Your task to perform on an android device: Go to accessibility settings Image 0: 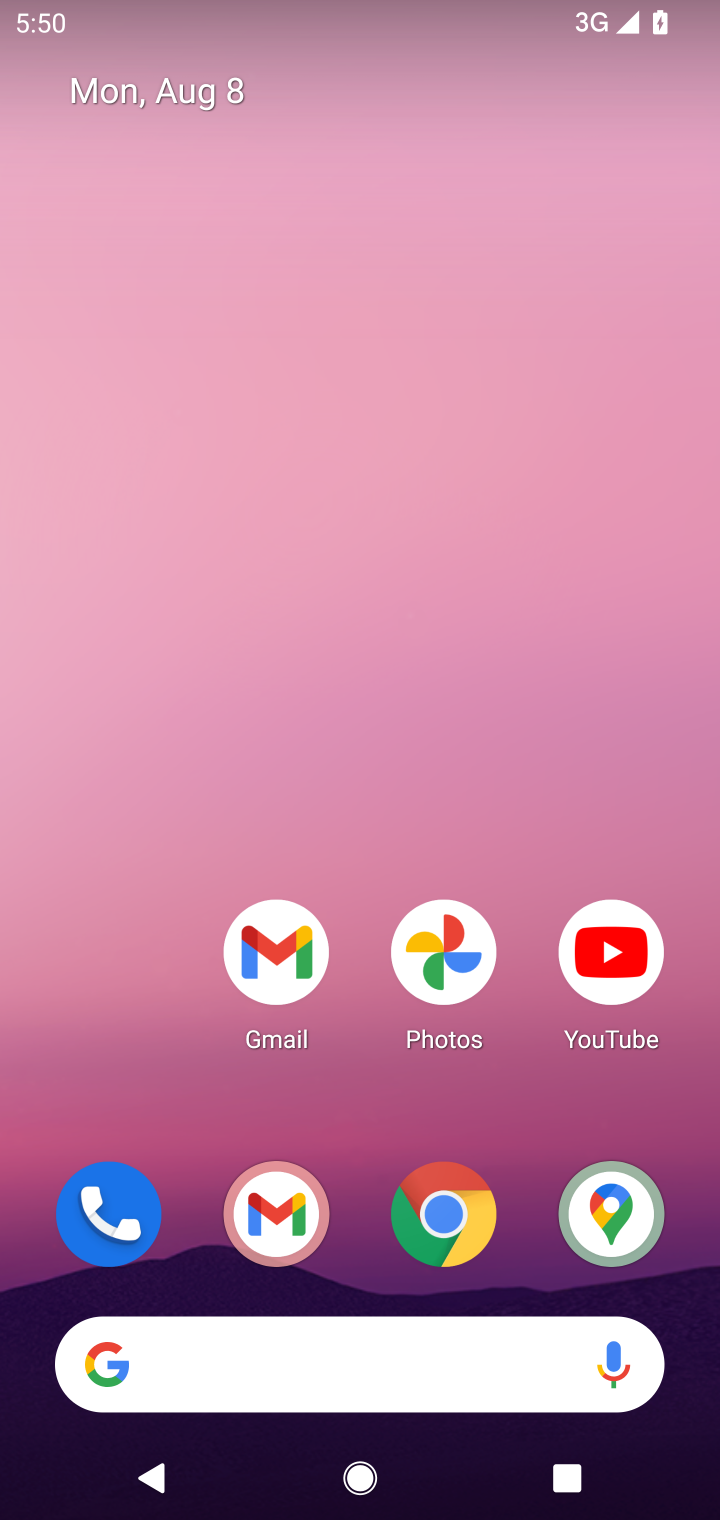
Step 0: drag from (361, 1300) to (359, 148)
Your task to perform on an android device: Go to accessibility settings Image 1: 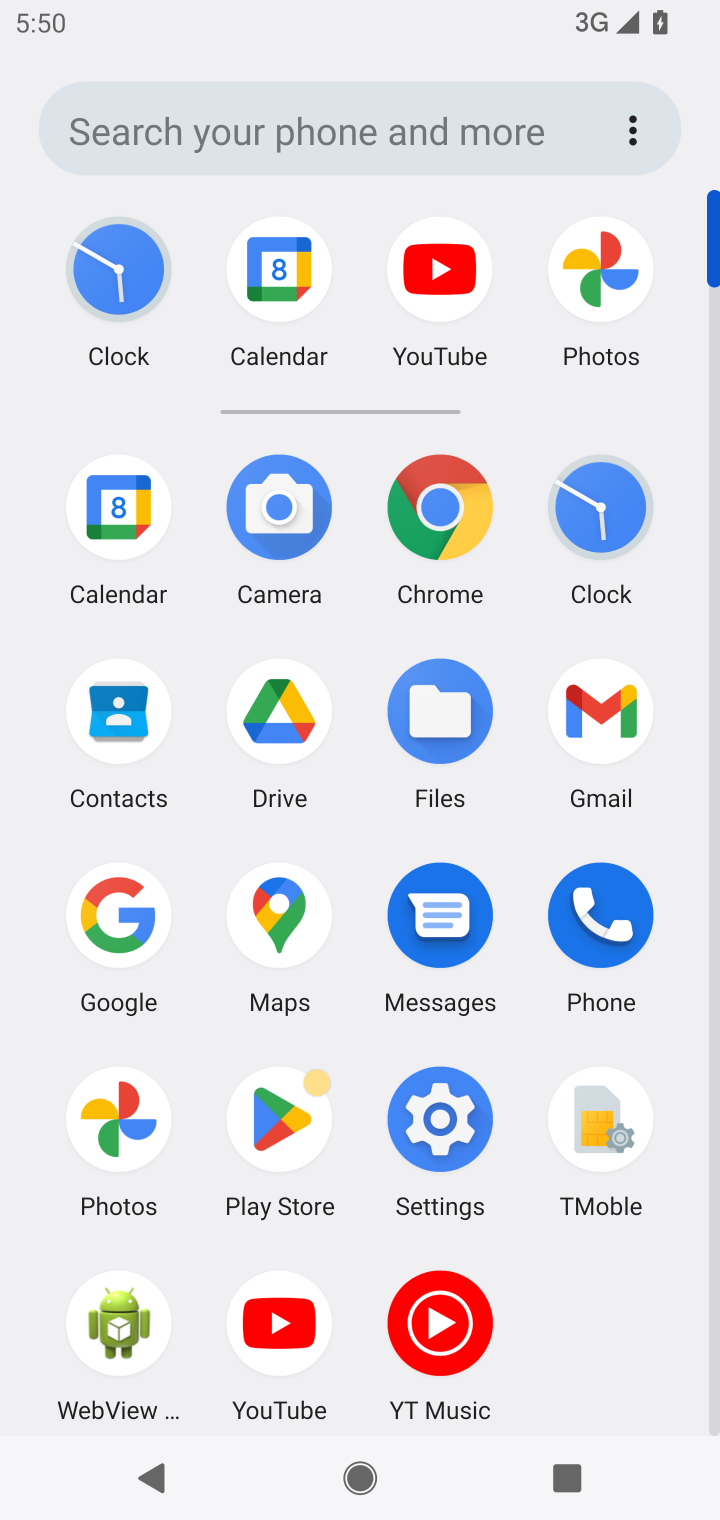
Step 1: click (442, 1134)
Your task to perform on an android device: Go to accessibility settings Image 2: 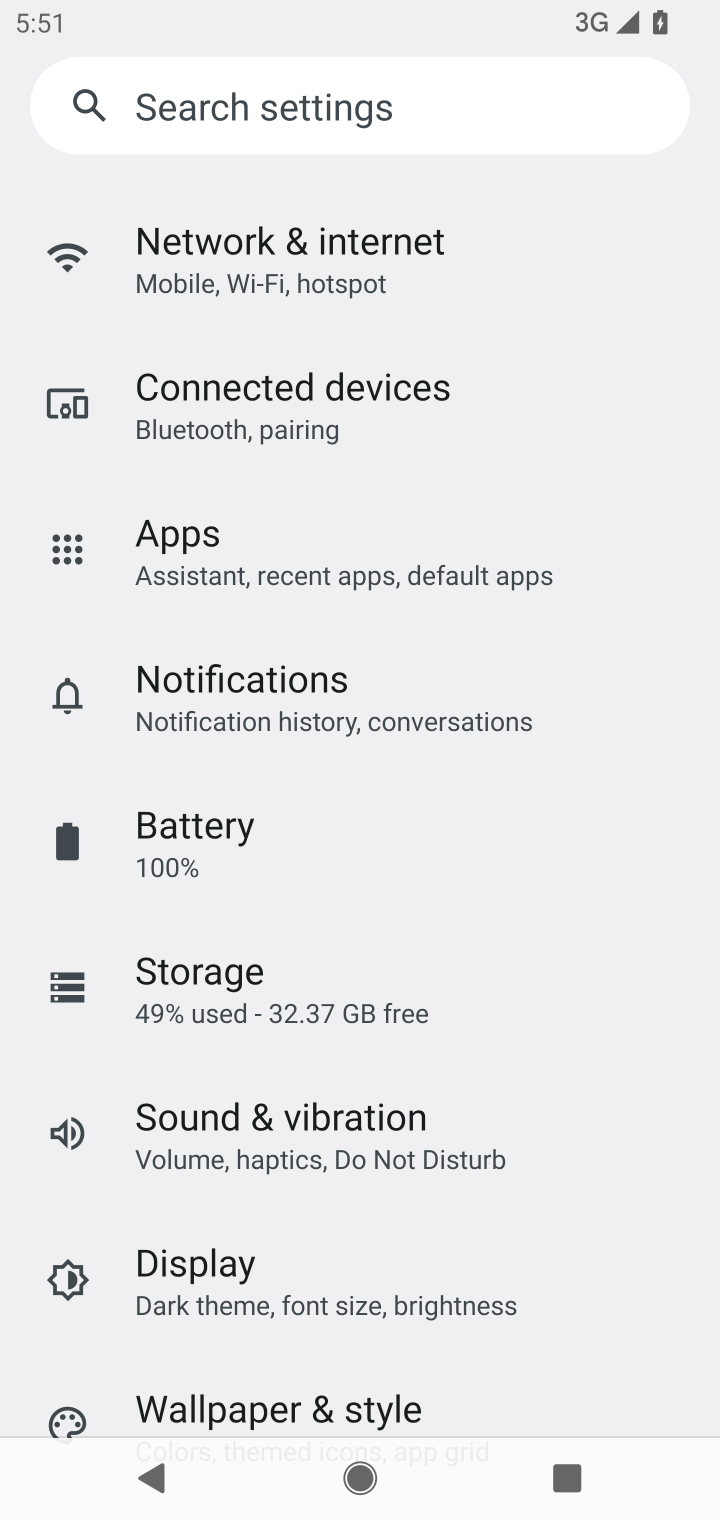
Step 2: drag from (224, 1368) to (224, 358)
Your task to perform on an android device: Go to accessibility settings Image 3: 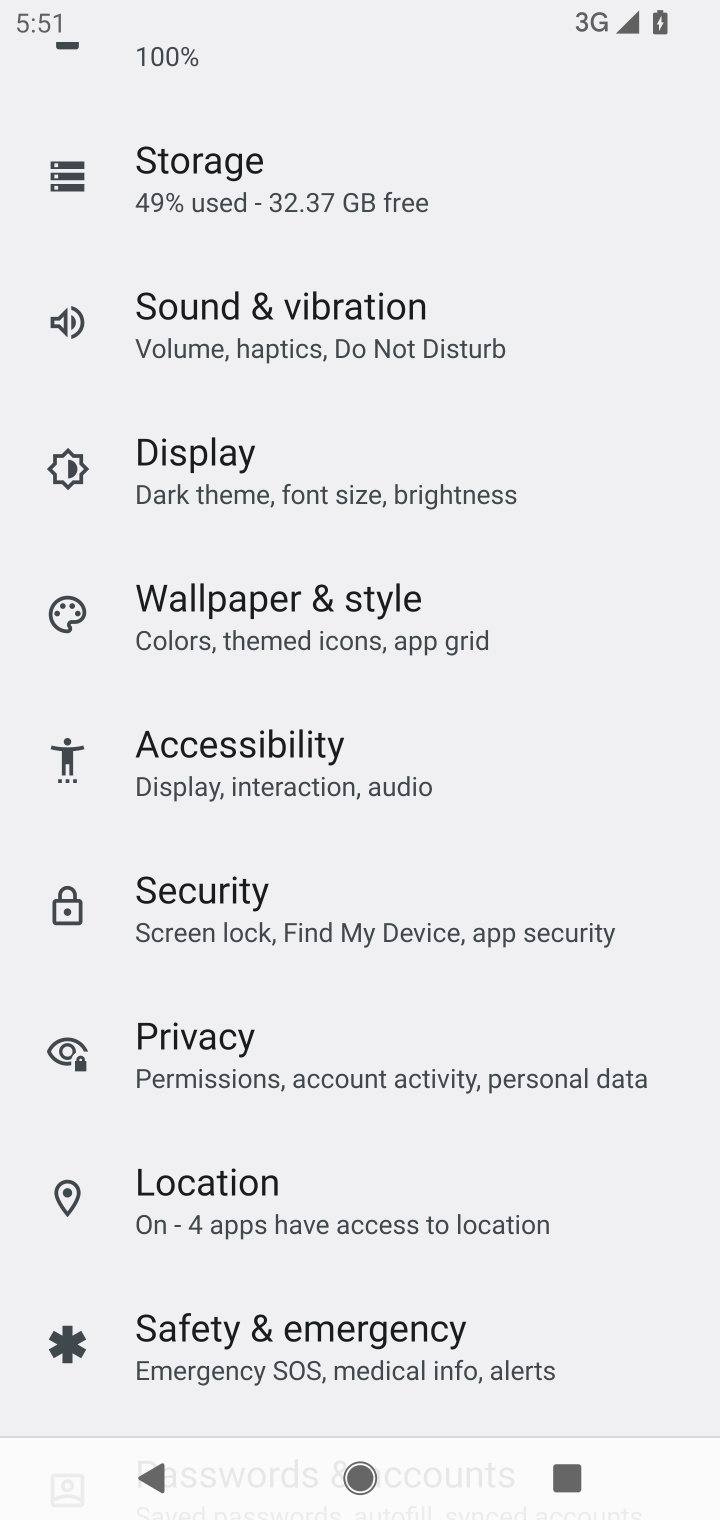
Step 3: drag from (238, 1343) to (202, 591)
Your task to perform on an android device: Go to accessibility settings Image 4: 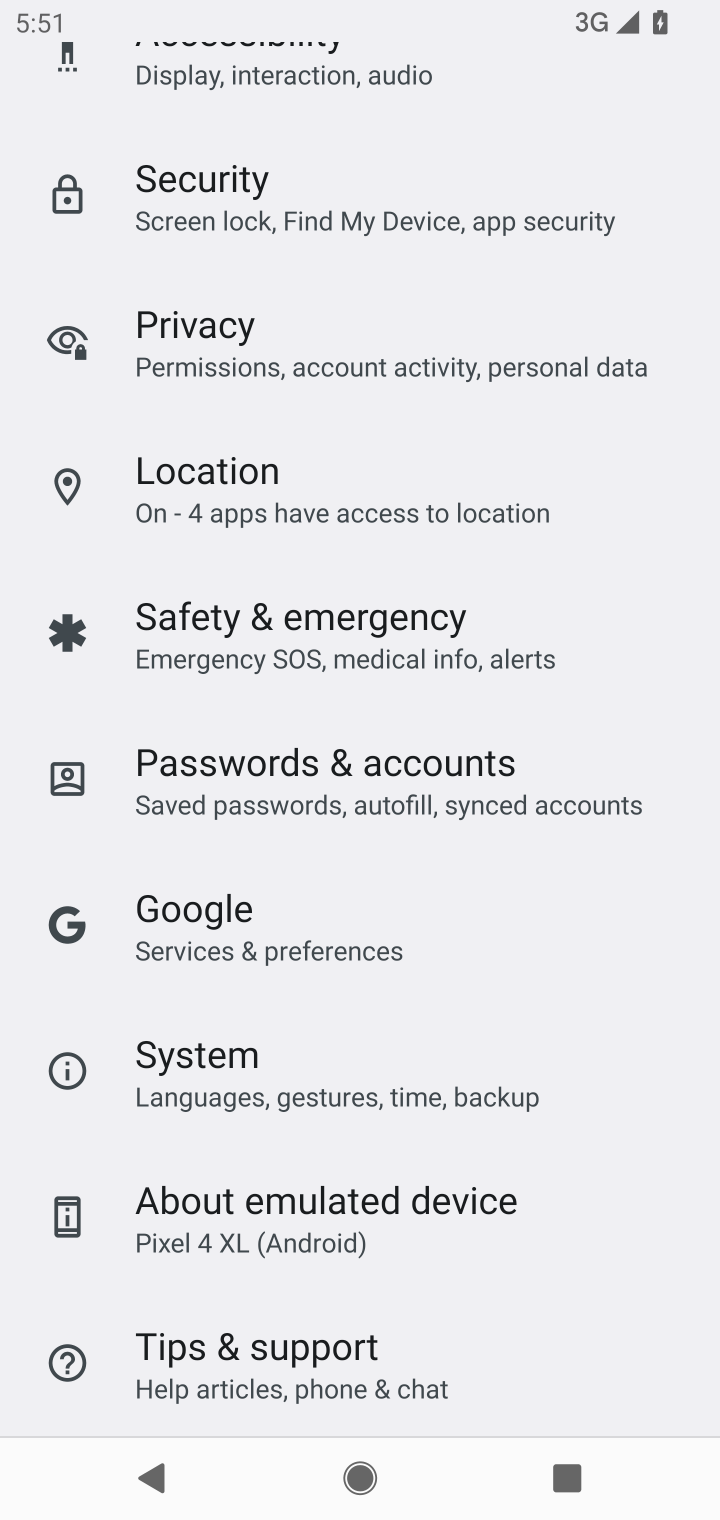
Step 4: drag from (303, 339) to (314, 820)
Your task to perform on an android device: Go to accessibility settings Image 5: 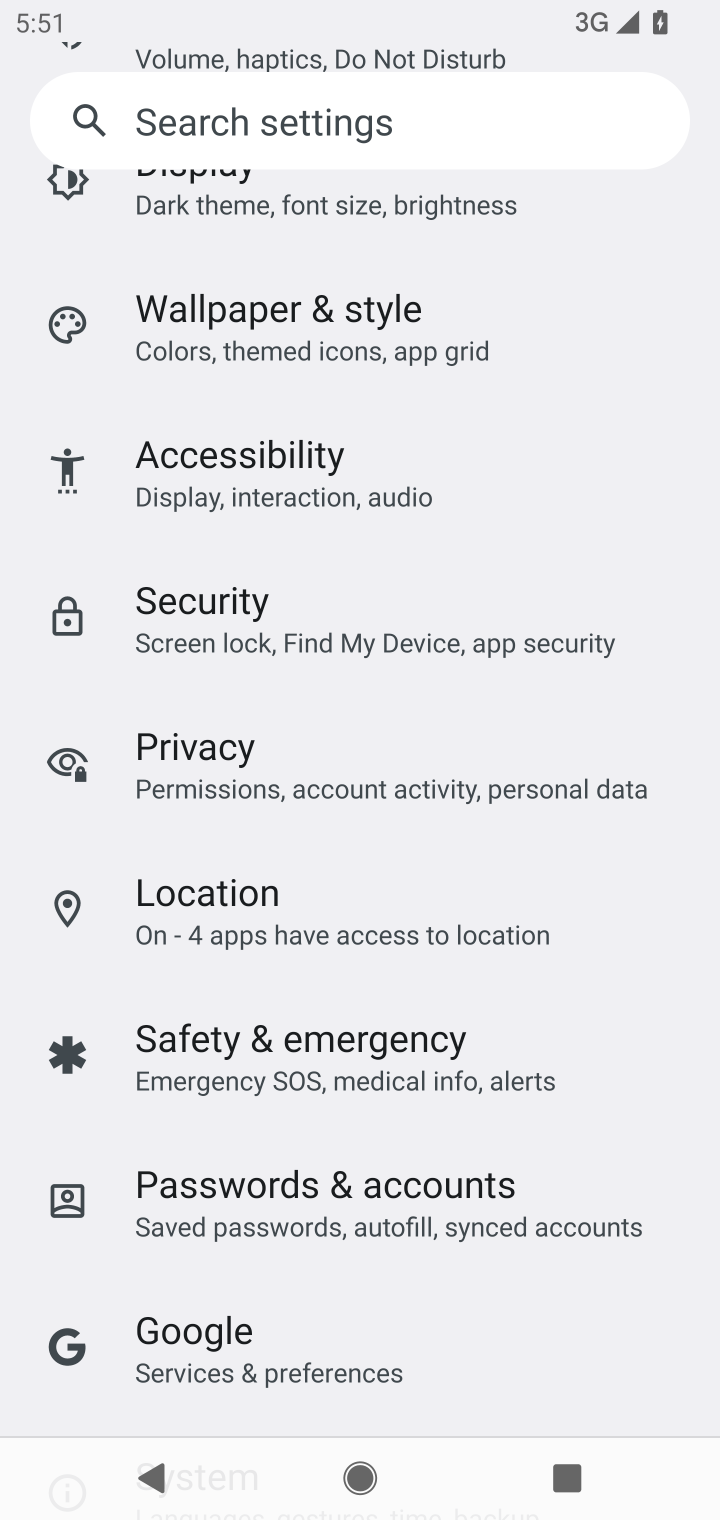
Step 5: click (217, 473)
Your task to perform on an android device: Go to accessibility settings Image 6: 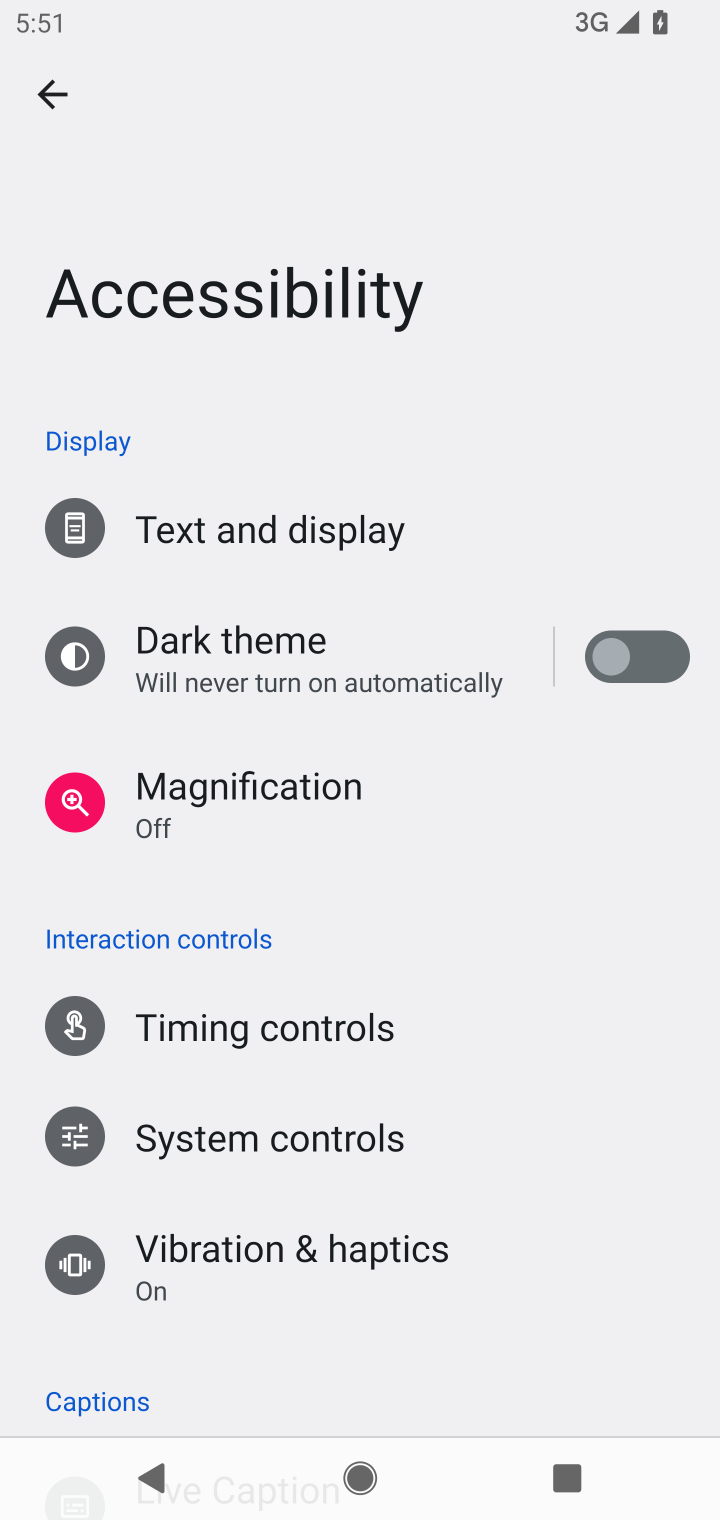
Step 6: task complete